Your task to perform on an android device: Look up the best rated 5.1 home theater speakers on Walmart. Image 0: 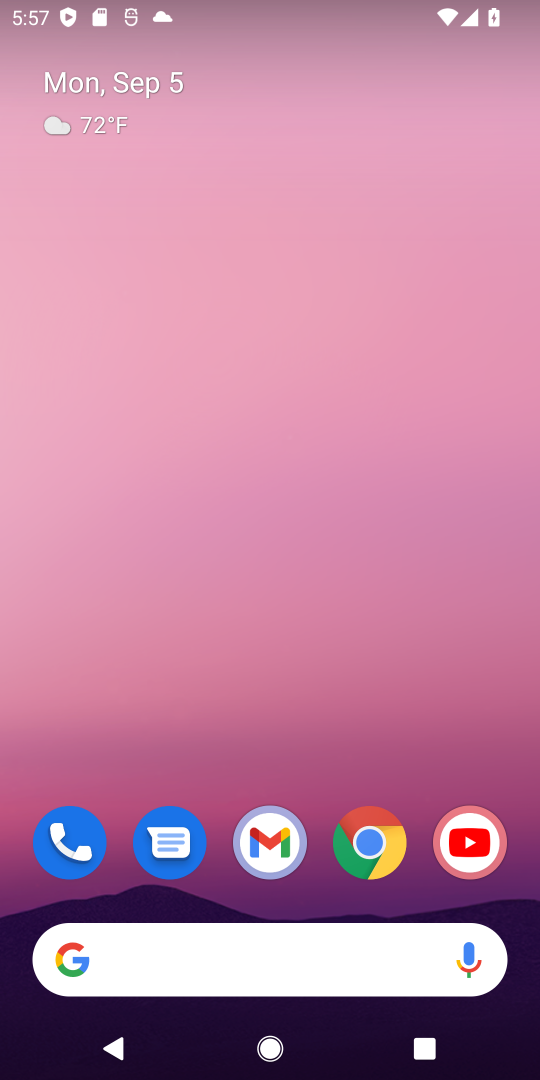
Step 0: click (369, 844)
Your task to perform on an android device: Look up the best rated 5.1 home theater speakers on Walmart. Image 1: 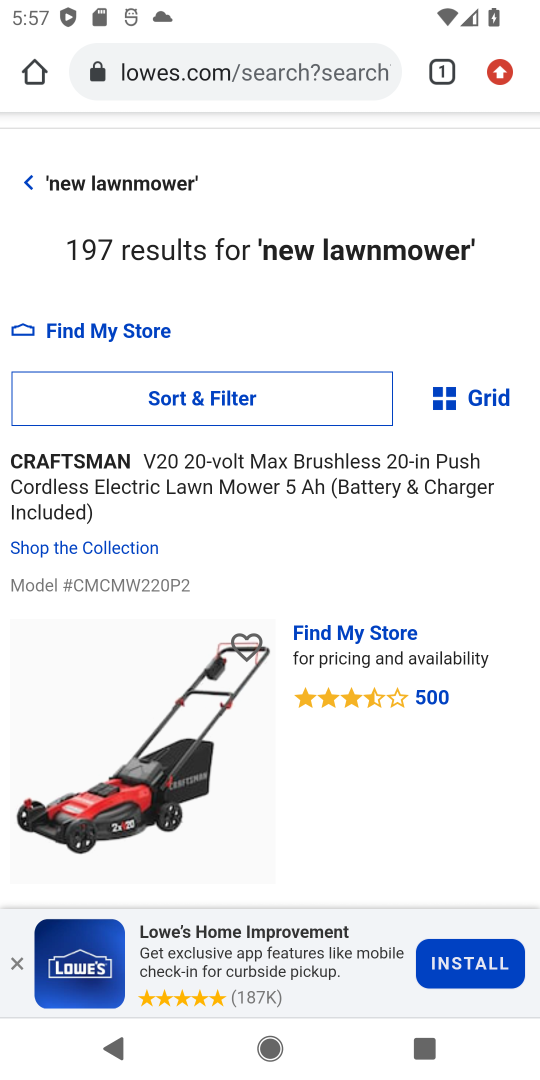
Step 1: click (226, 75)
Your task to perform on an android device: Look up the best rated 5.1 home theater speakers on Walmart. Image 2: 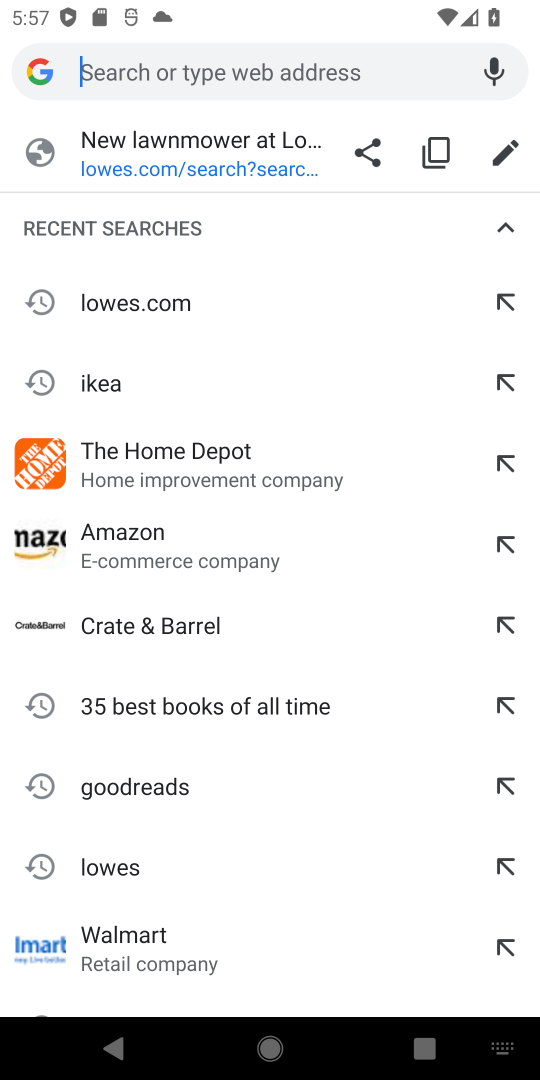
Step 2: type "Walmart"
Your task to perform on an android device: Look up the best rated 5.1 home theater speakers on Walmart. Image 3: 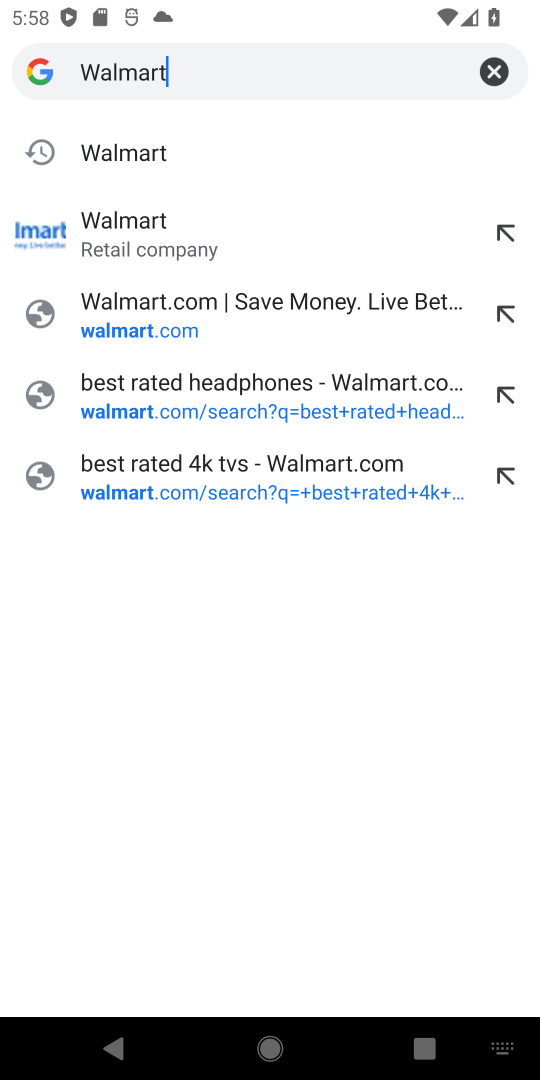
Step 3: click (139, 158)
Your task to perform on an android device: Look up the best rated 5.1 home theater speakers on Walmart. Image 4: 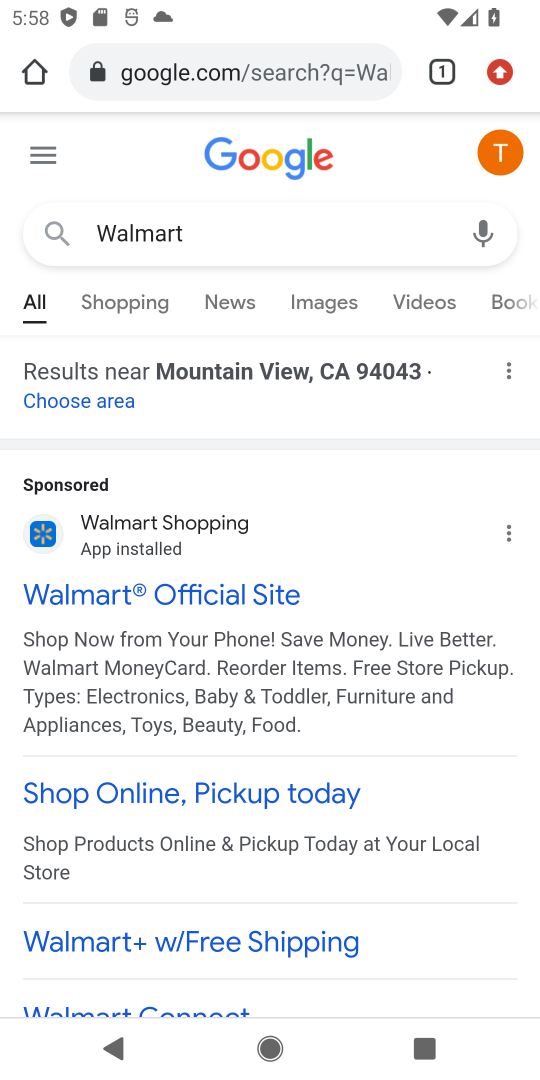
Step 4: drag from (301, 521) to (337, 204)
Your task to perform on an android device: Look up the best rated 5.1 home theater speakers on Walmart. Image 5: 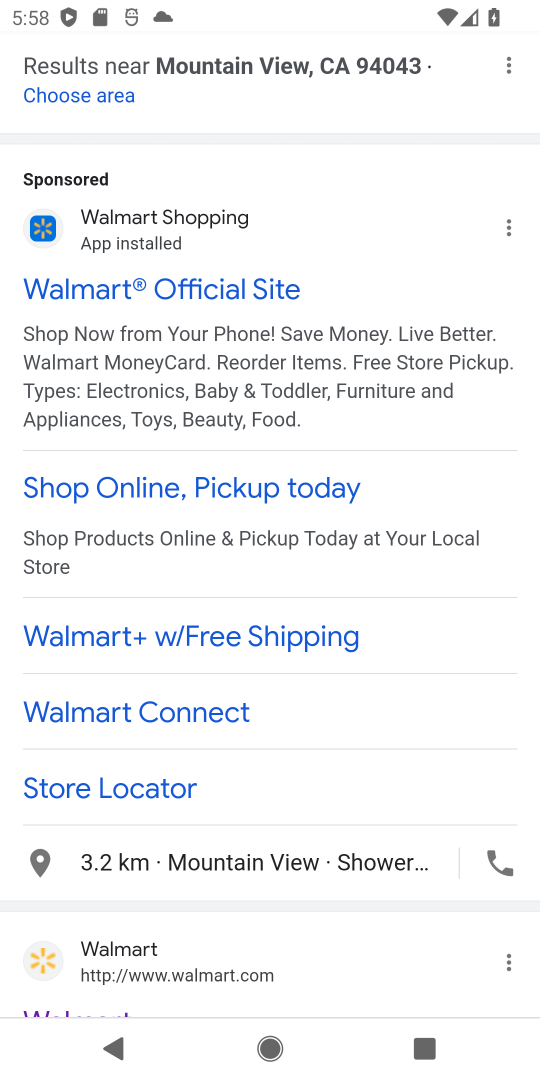
Step 5: click (441, 195)
Your task to perform on an android device: Look up the best rated 5.1 home theater speakers on Walmart. Image 6: 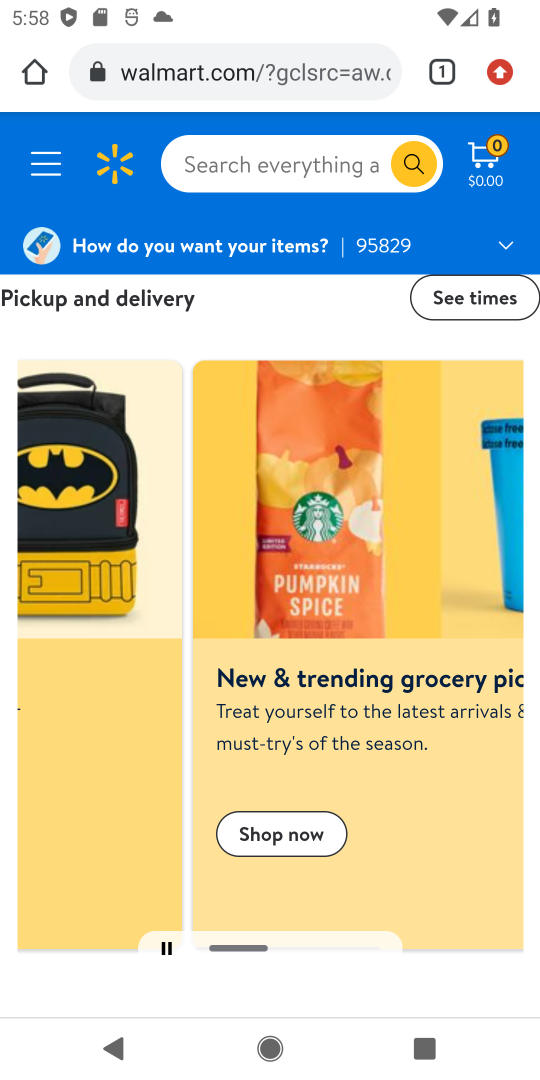
Step 6: click (269, 169)
Your task to perform on an android device: Look up the best rated 5.1 home theater speakers on Walmart. Image 7: 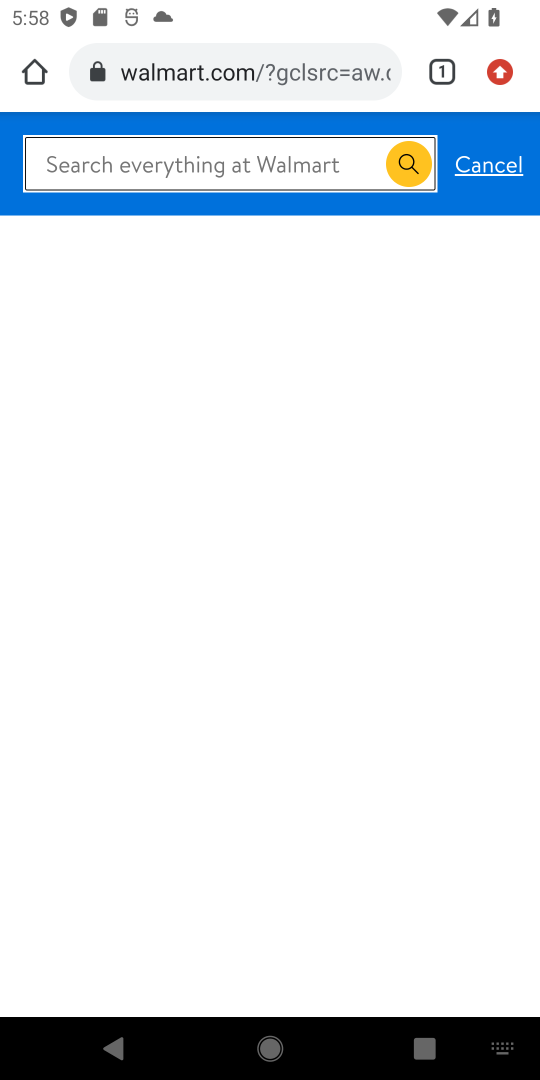
Step 7: type "best rated 5.1 home theater speakers"
Your task to perform on an android device: Look up the best rated 5.1 home theater speakers on Walmart. Image 8: 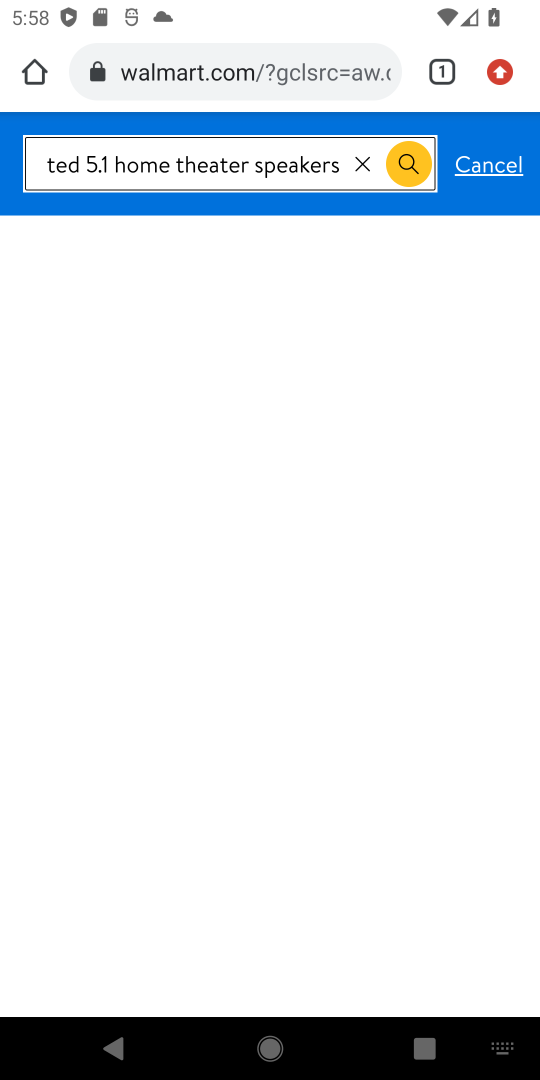
Step 8: click (408, 162)
Your task to perform on an android device: Look up the best rated 5.1 home theater speakers on Walmart. Image 9: 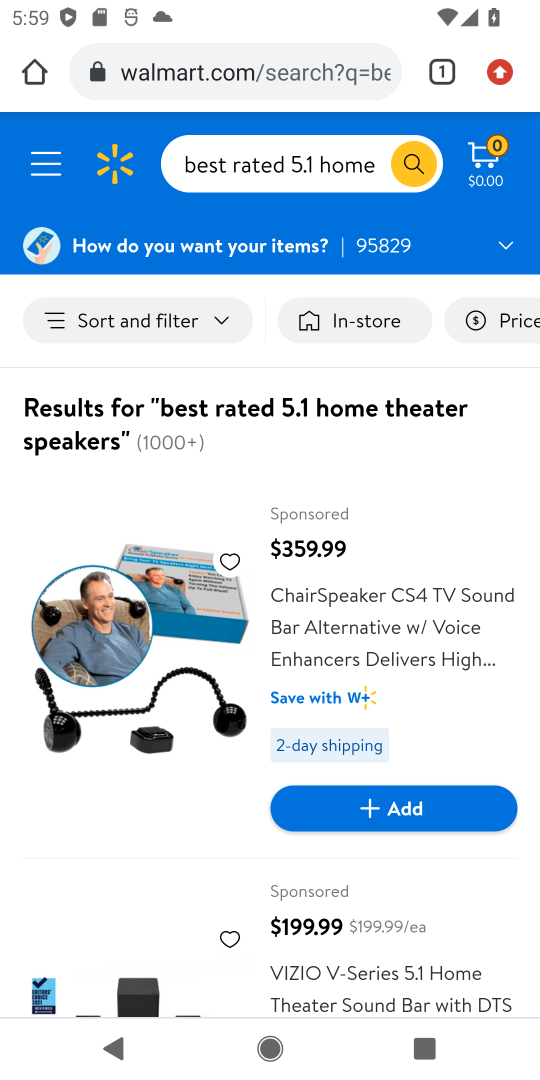
Step 9: drag from (217, 904) to (261, 543)
Your task to perform on an android device: Look up the best rated 5.1 home theater speakers on Walmart. Image 10: 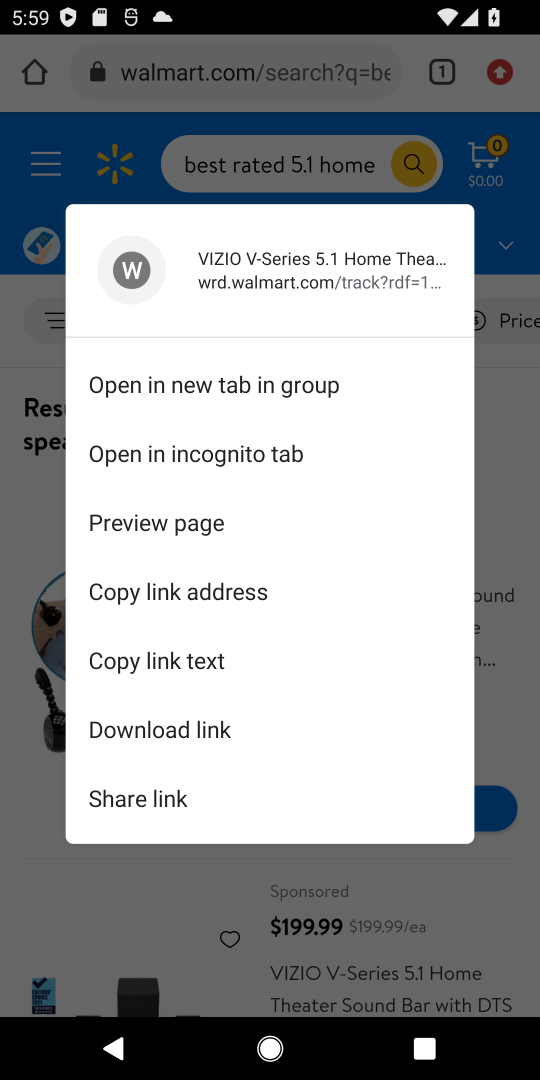
Step 10: click (506, 469)
Your task to perform on an android device: Look up the best rated 5.1 home theater speakers on Walmart. Image 11: 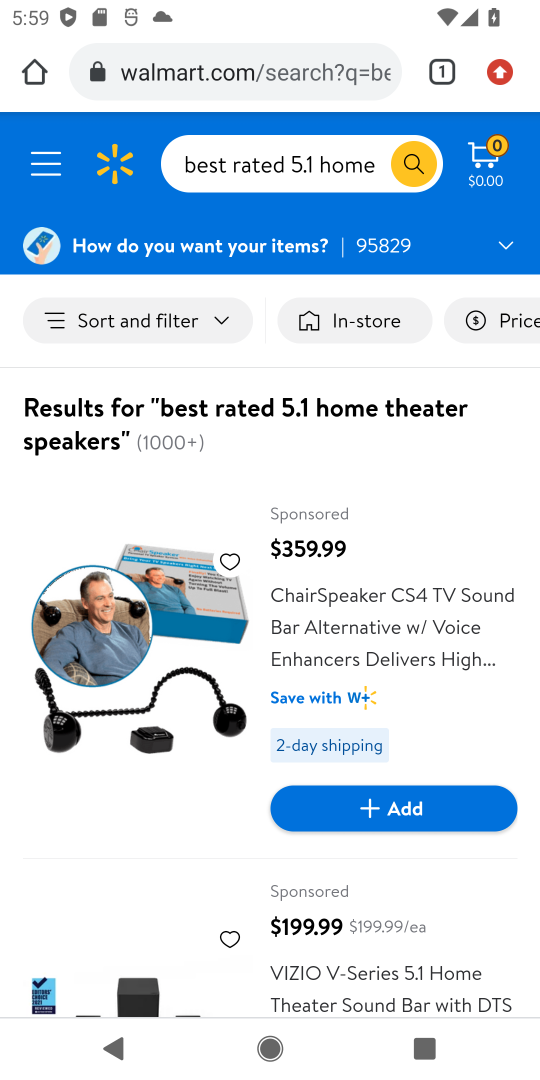
Step 11: task complete